Your task to perform on an android device: Open Google Chrome Image 0: 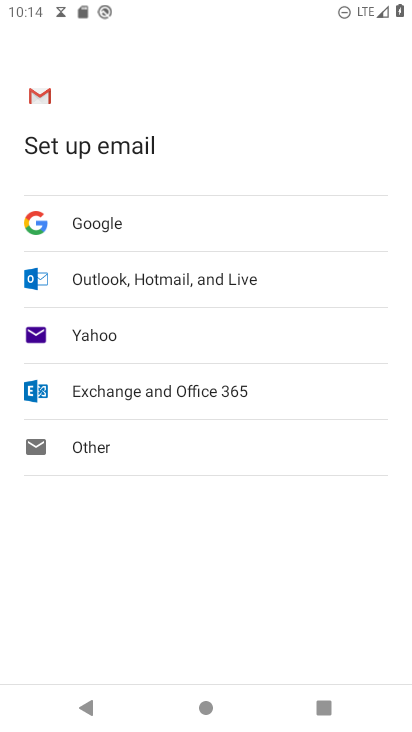
Step 0: press home button
Your task to perform on an android device: Open Google Chrome Image 1: 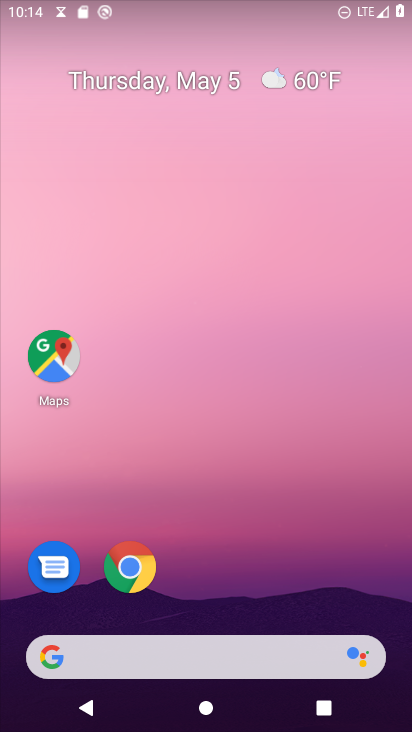
Step 1: click (130, 569)
Your task to perform on an android device: Open Google Chrome Image 2: 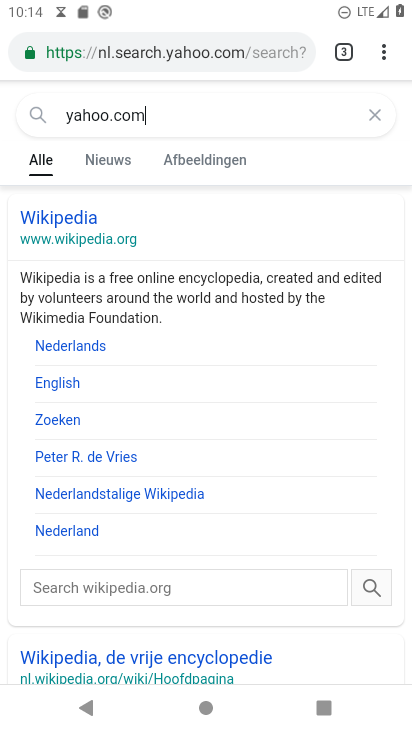
Step 2: task complete